Your task to perform on an android device: toggle wifi Image 0: 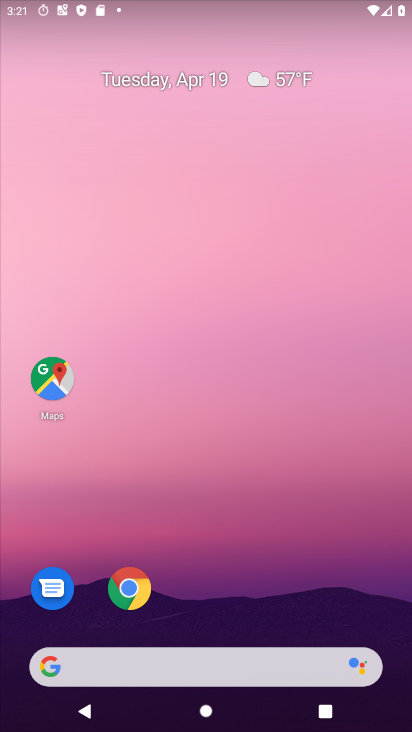
Step 0: drag from (186, 646) to (263, 445)
Your task to perform on an android device: toggle wifi Image 1: 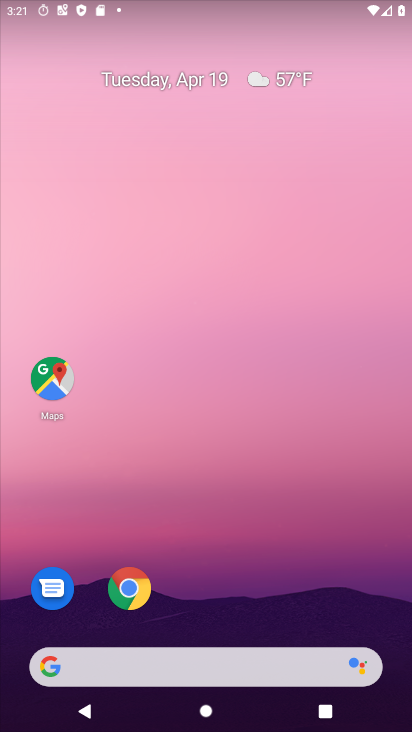
Step 1: drag from (240, 602) to (404, 268)
Your task to perform on an android device: toggle wifi Image 2: 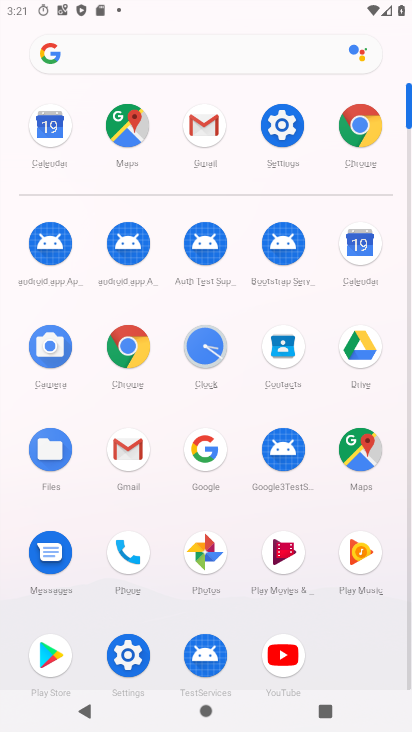
Step 2: click (287, 125)
Your task to perform on an android device: toggle wifi Image 3: 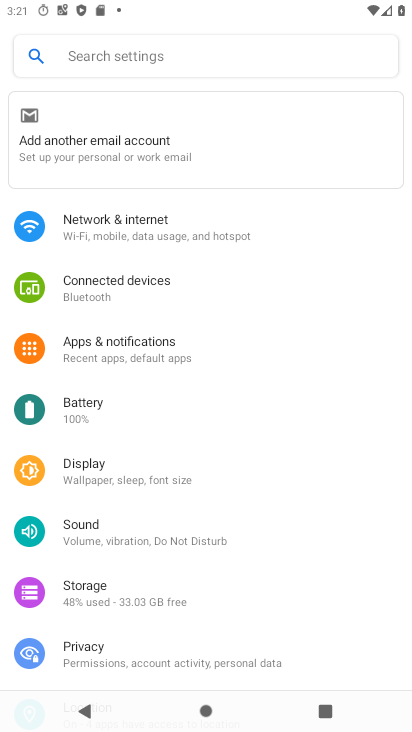
Step 3: drag from (165, 566) to (213, 150)
Your task to perform on an android device: toggle wifi Image 4: 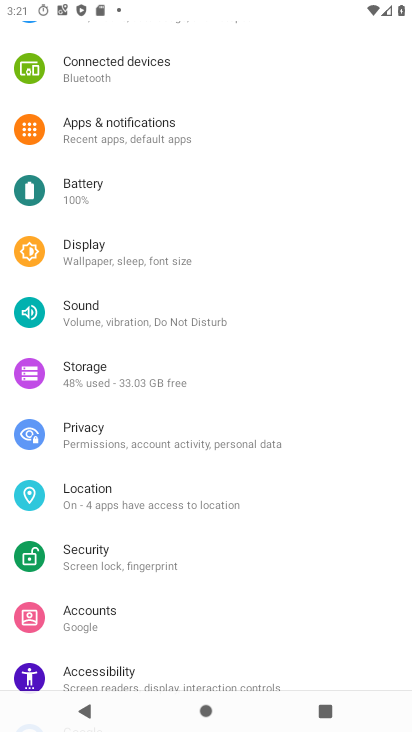
Step 4: drag from (180, 497) to (234, 189)
Your task to perform on an android device: toggle wifi Image 5: 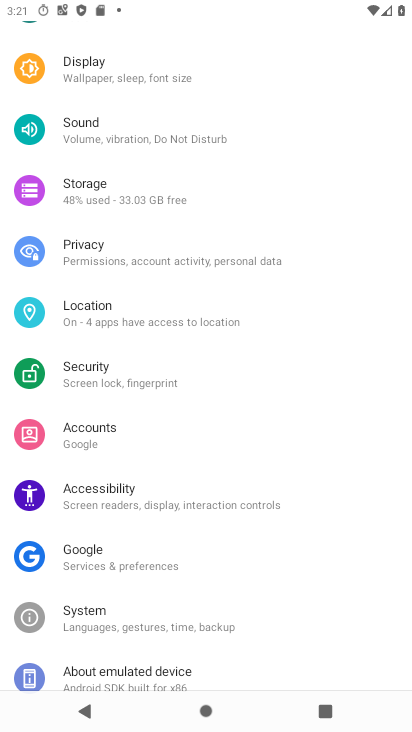
Step 5: drag from (179, 130) to (284, 689)
Your task to perform on an android device: toggle wifi Image 6: 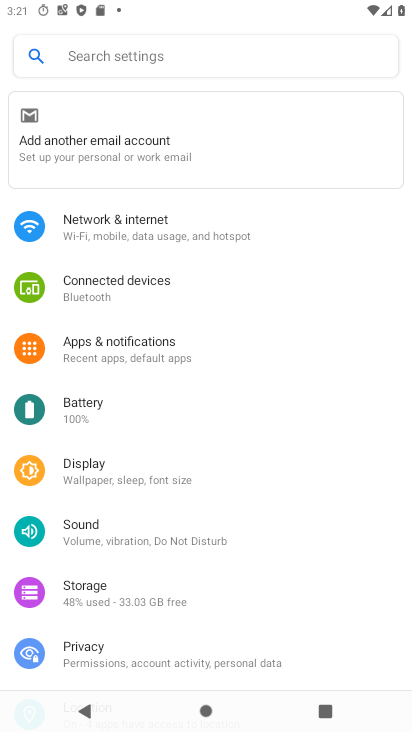
Step 6: click (113, 228)
Your task to perform on an android device: toggle wifi Image 7: 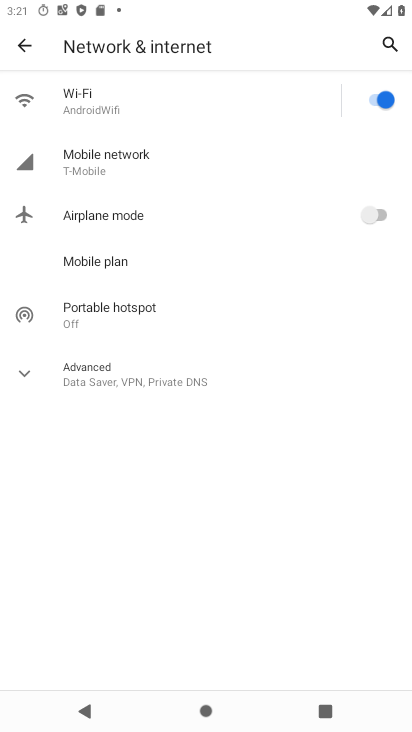
Step 7: click (146, 111)
Your task to perform on an android device: toggle wifi Image 8: 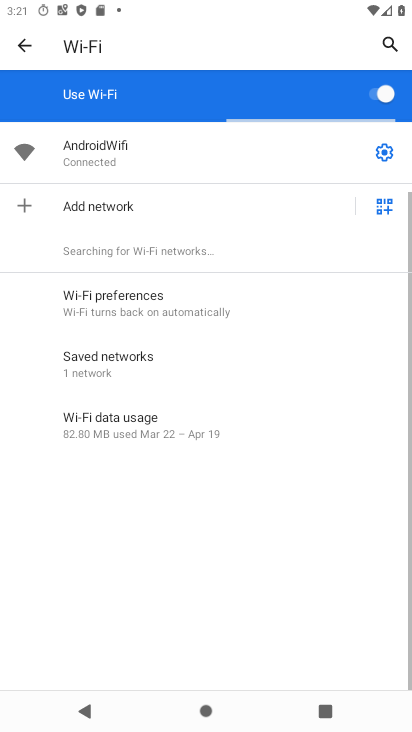
Step 8: click (376, 95)
Your task to perform on an android device: toggle wifi Image 9: 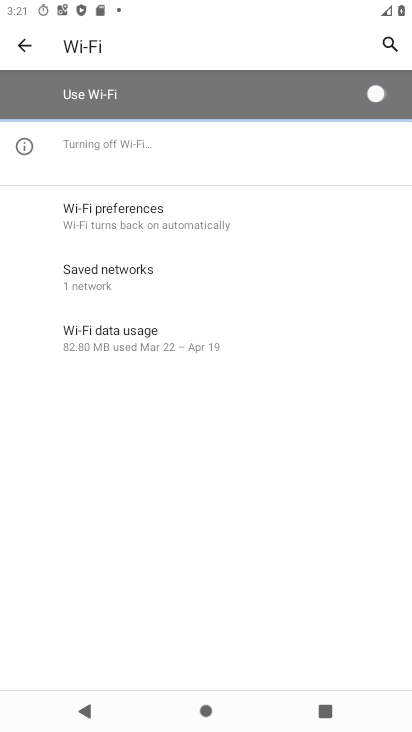
Step 9: task complete